Your task to perform on an android device: View the shopping cart on newegg.com. Search for acer predator on newegg.com, select the first entry, add it to the cart, then select checkout. Image 0: 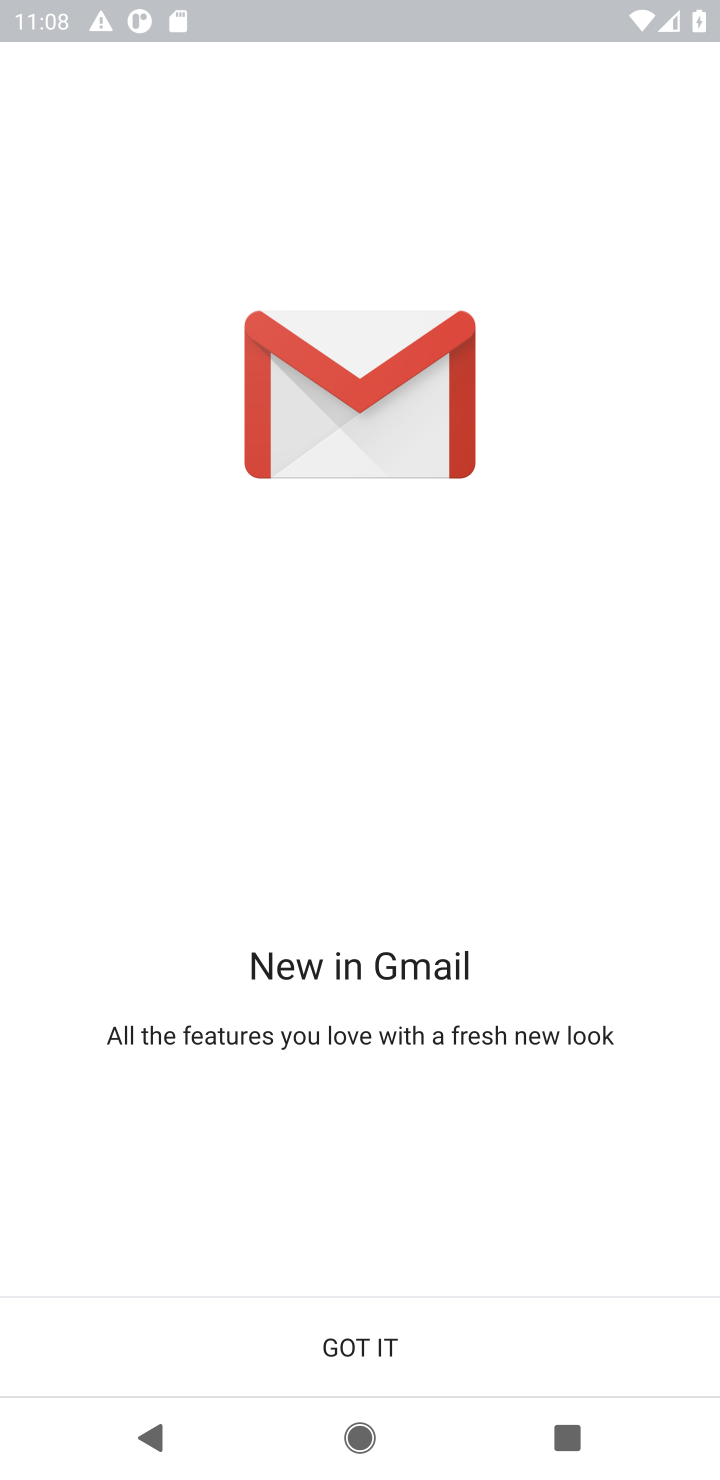
Step 0: press home button
Your task to perform on an android device: View the shopping cart on newegg.com. Search for acer predator on newegg.com, select the first entry, add it to the cart, then select checkout. Image 1: 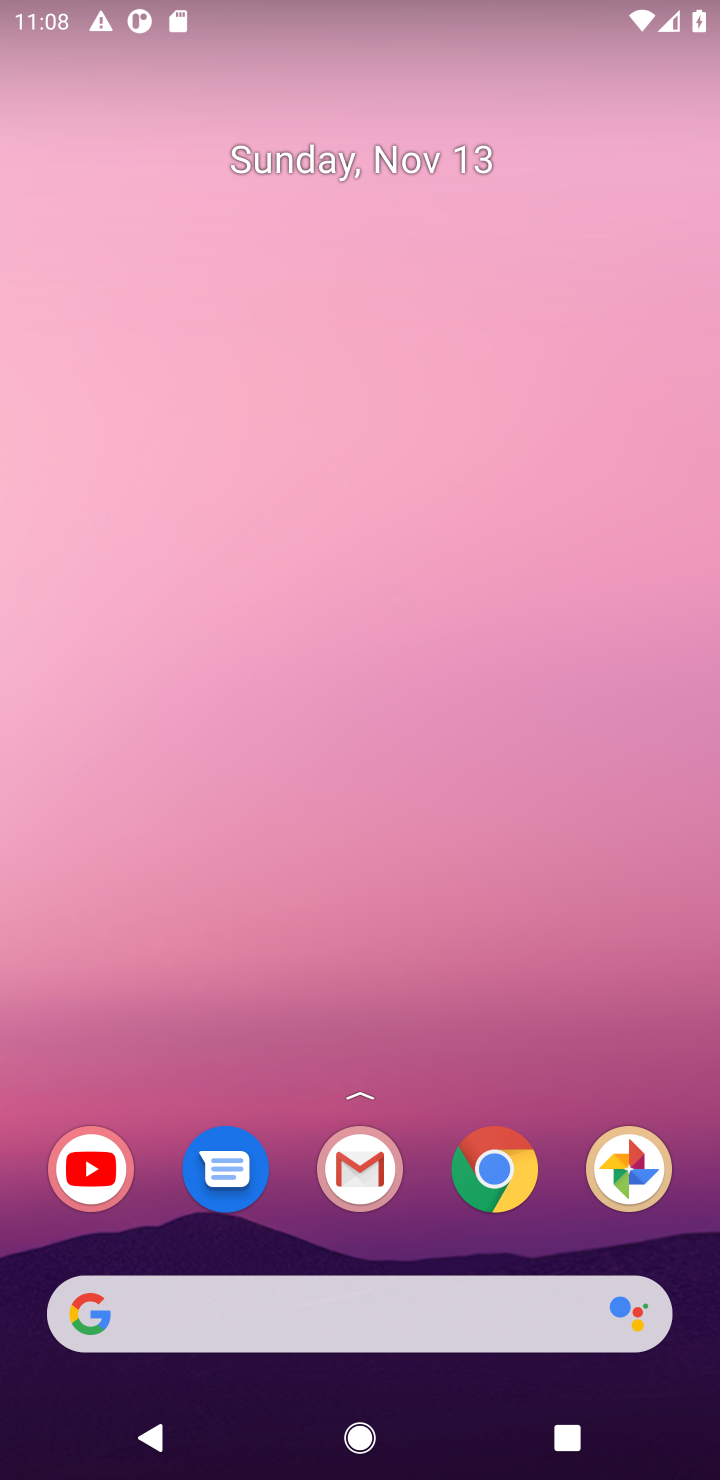
Step 1: drag from (332, 574) to (275, 188)
Your task to perform on an android device: View the shopping cart on newegg.com. Search for acer predator on newegg.com, select the first entry, add it to the cart, then select checkout. Image 2: 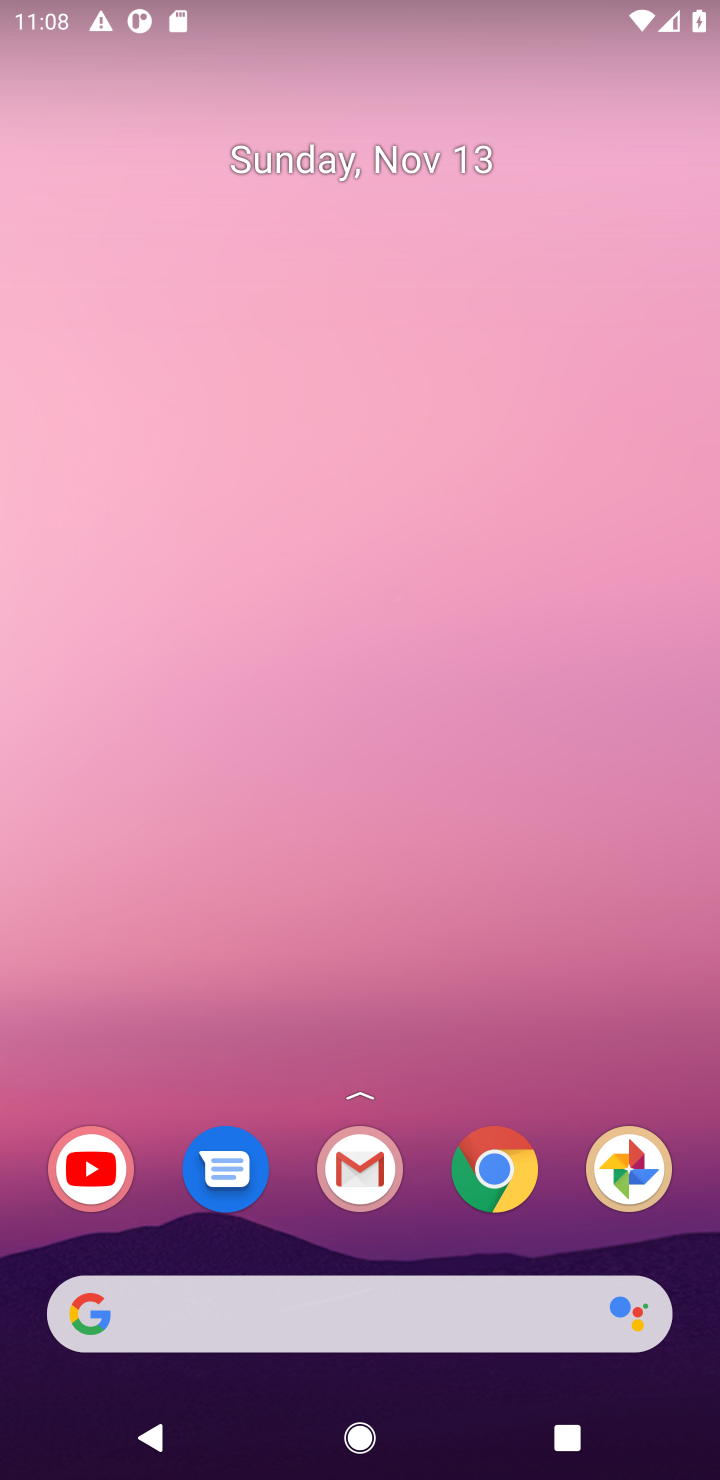
Step 2: drag from (293, 1250) to (254, 112)
Your task to perform on an android device: View the shopping cart on newegg.com. Search for acer predator on newegg.com, select the first entry, add it to the cart, then select checkout. Image 3: 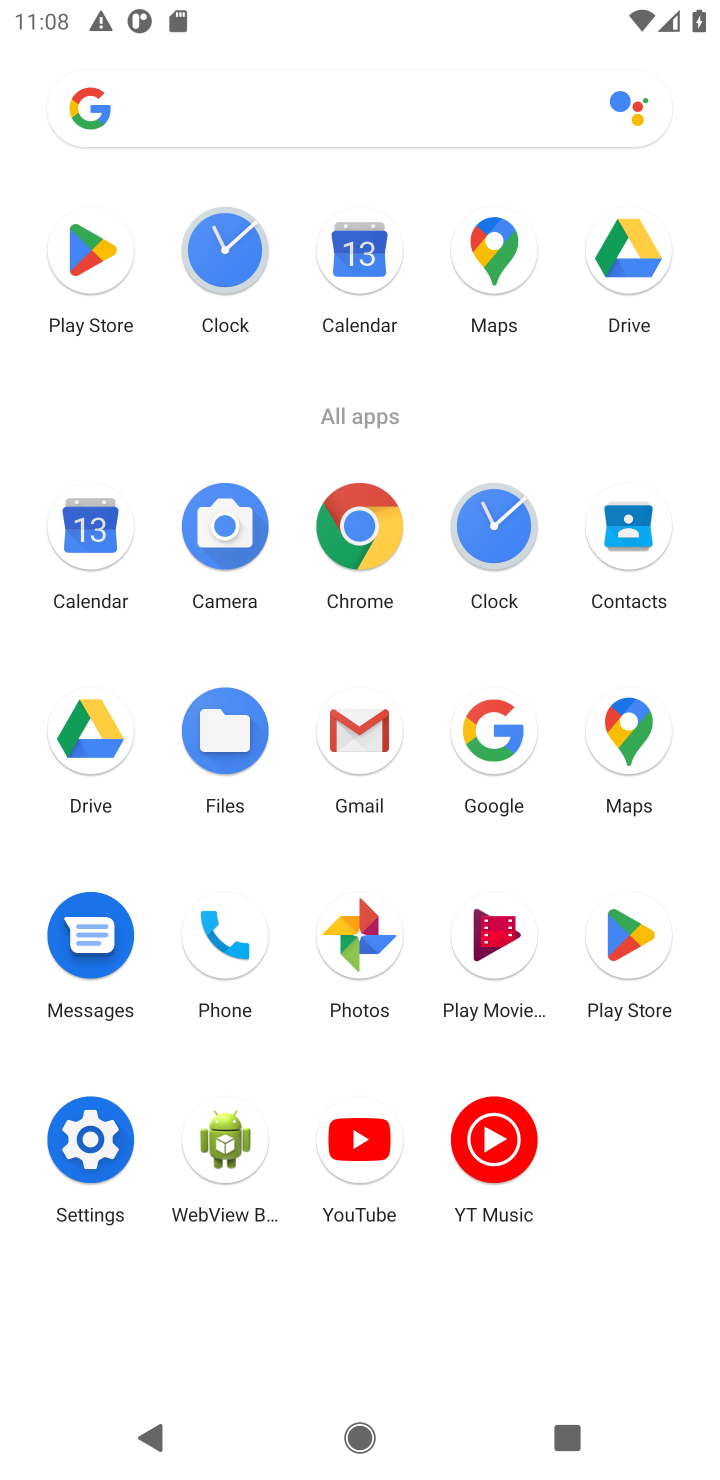
Step 3: click (351, 537)
Your task to perform on an android device: View the shopping cart on newegg.com. Search for acer predator on newegg.com, select the first entry, add it to the cart, then select checkout. Image 4: 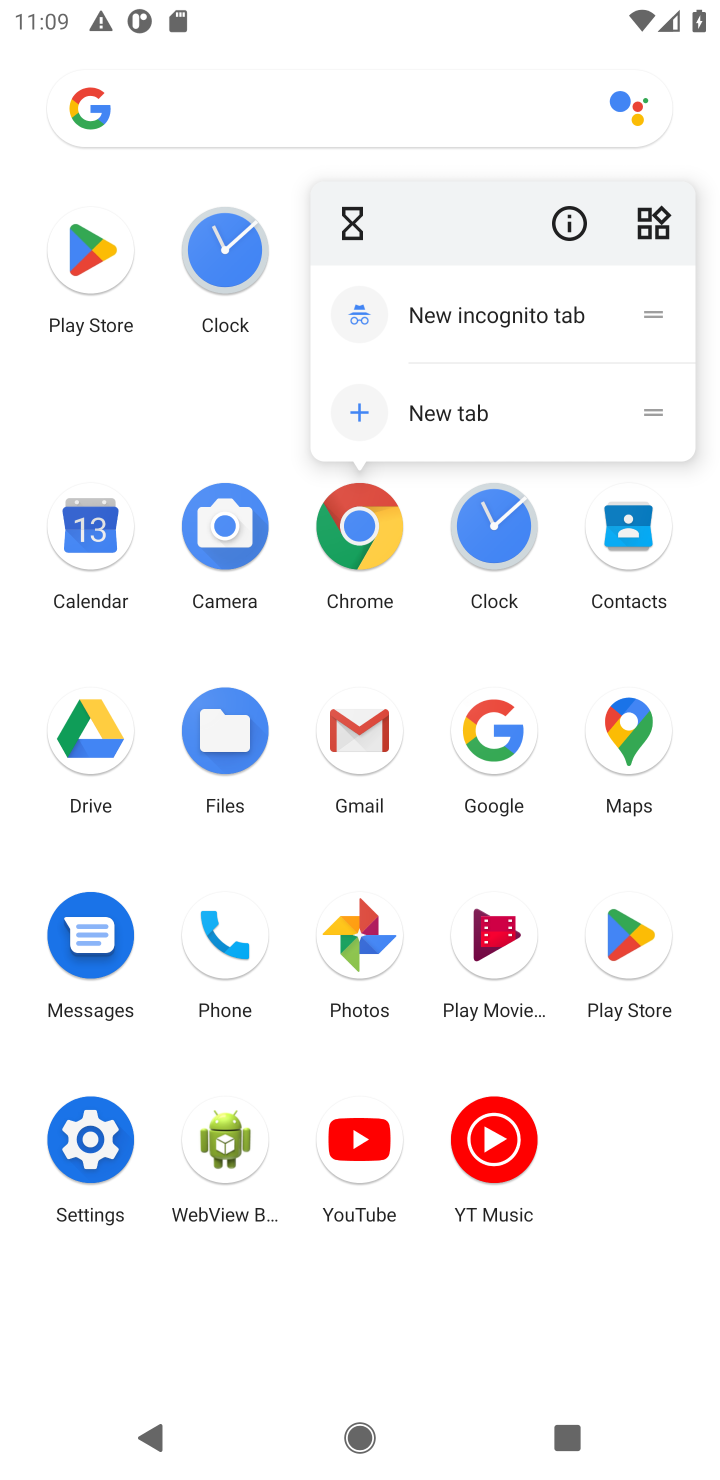
Step 4: click (349, 533)
Your task to perform on an android device: View the shopping cart on newegg.com. Search for acer predator on newegg.com, select the first entry, add it to the cart, then select checkout. Image 5: 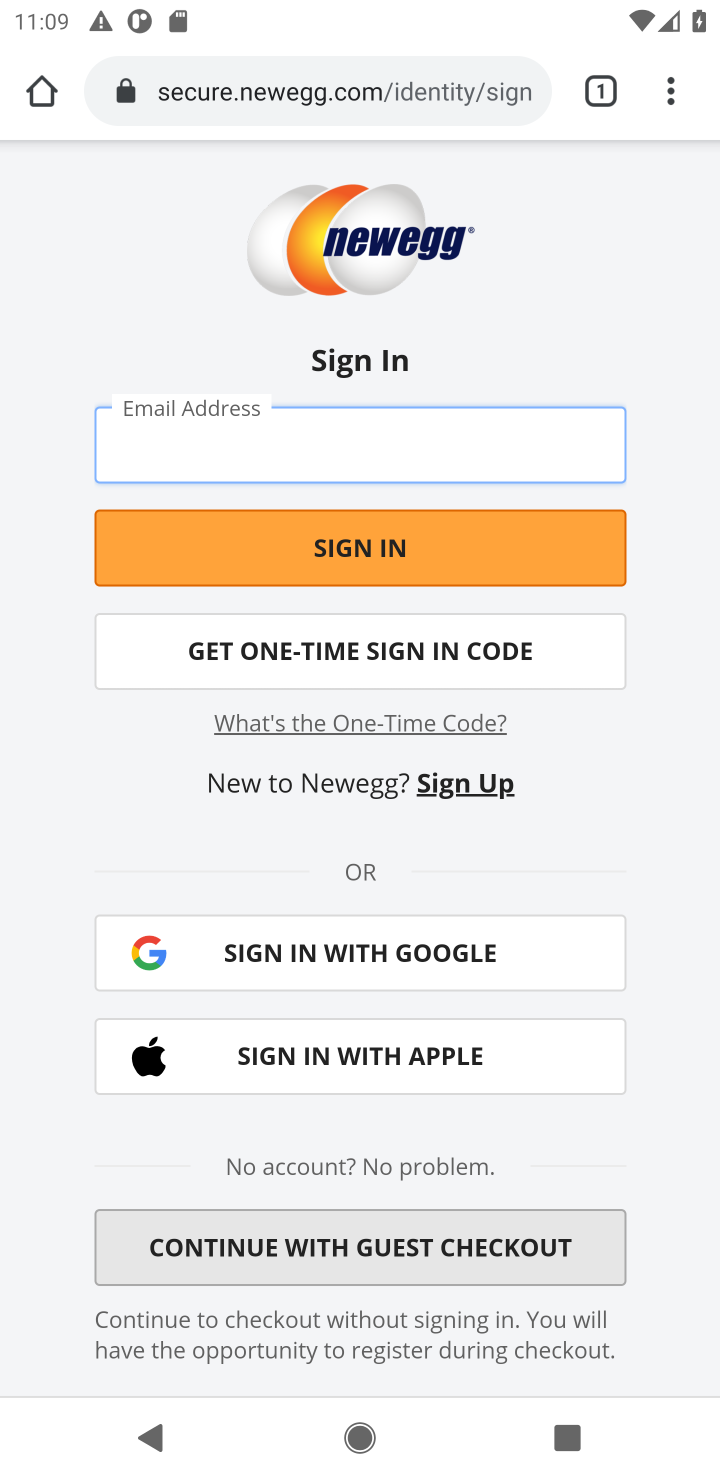
Step 5: click (222, 85)
Your task to perform on an android device: View the shopping cart on newegg.com. Search for acer predator on newegg.com, select the first entry, add it to the cart, then select checkout. Image 6: 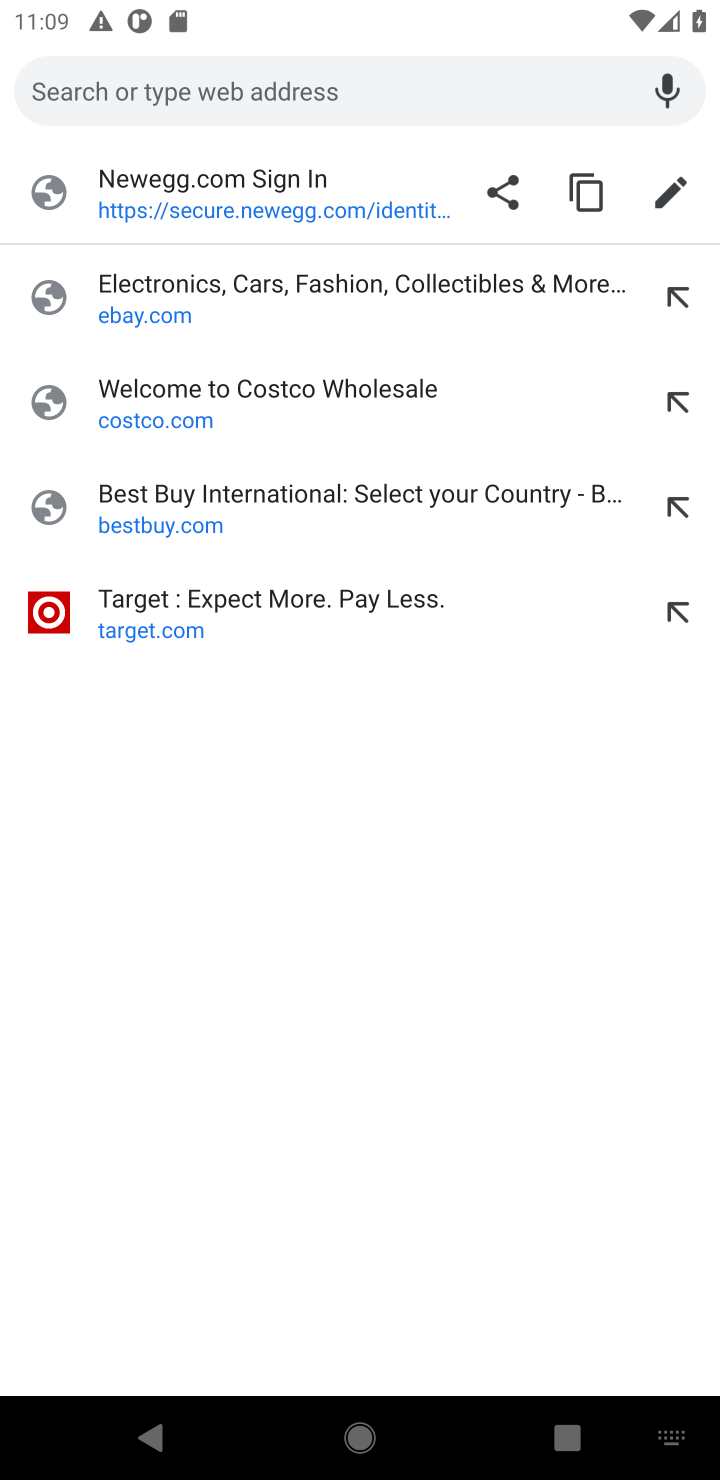
Step 6: type "newegg.com"
Your task to perform on an android device: View the shopping cart on newegg.com. Search for acer predator on newegg.com, select the first entry, add it to the cart, then select checkout. Image 7: 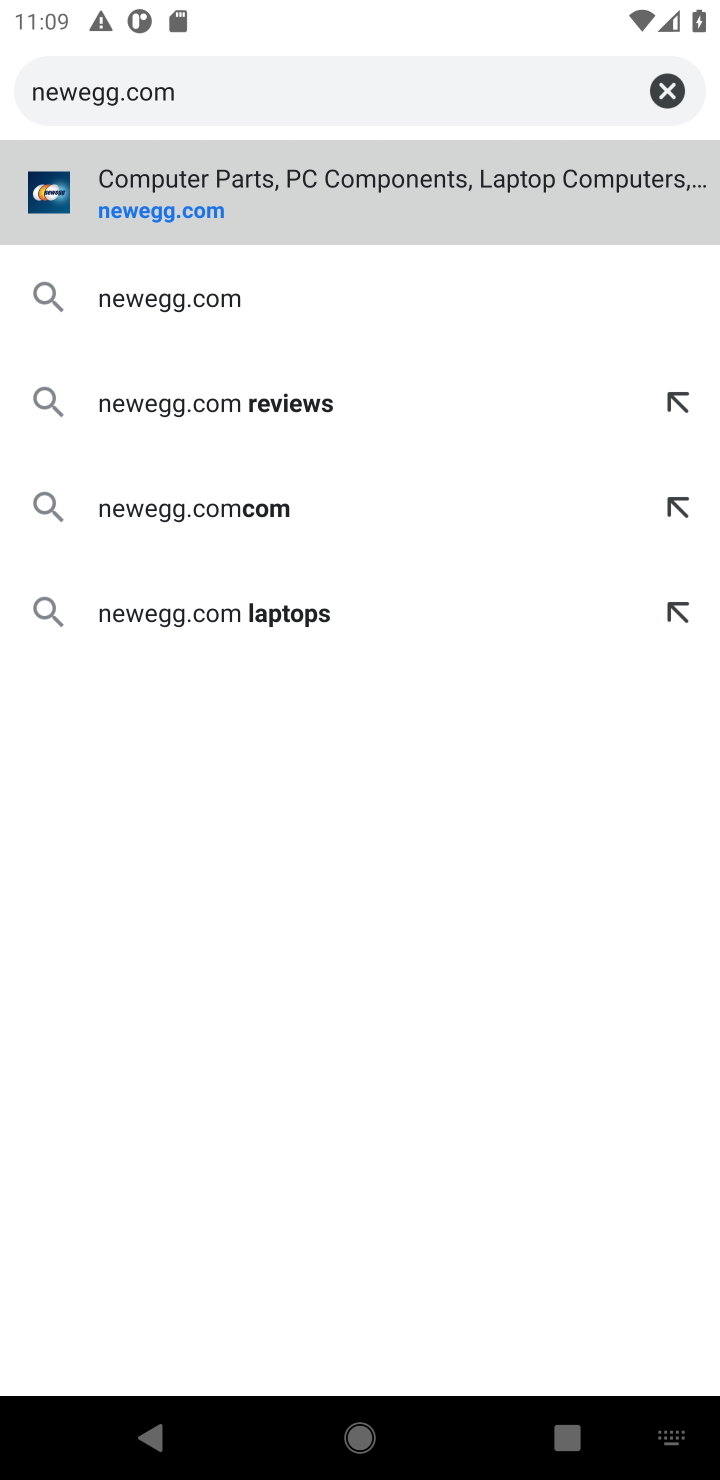
Step 7: press enter
Your task to perform on an android device: View the shopping cart on newegg.com. Search for acer predator on newegg.com, select the first entry, add it to the cart, then select checkout. Image 8: 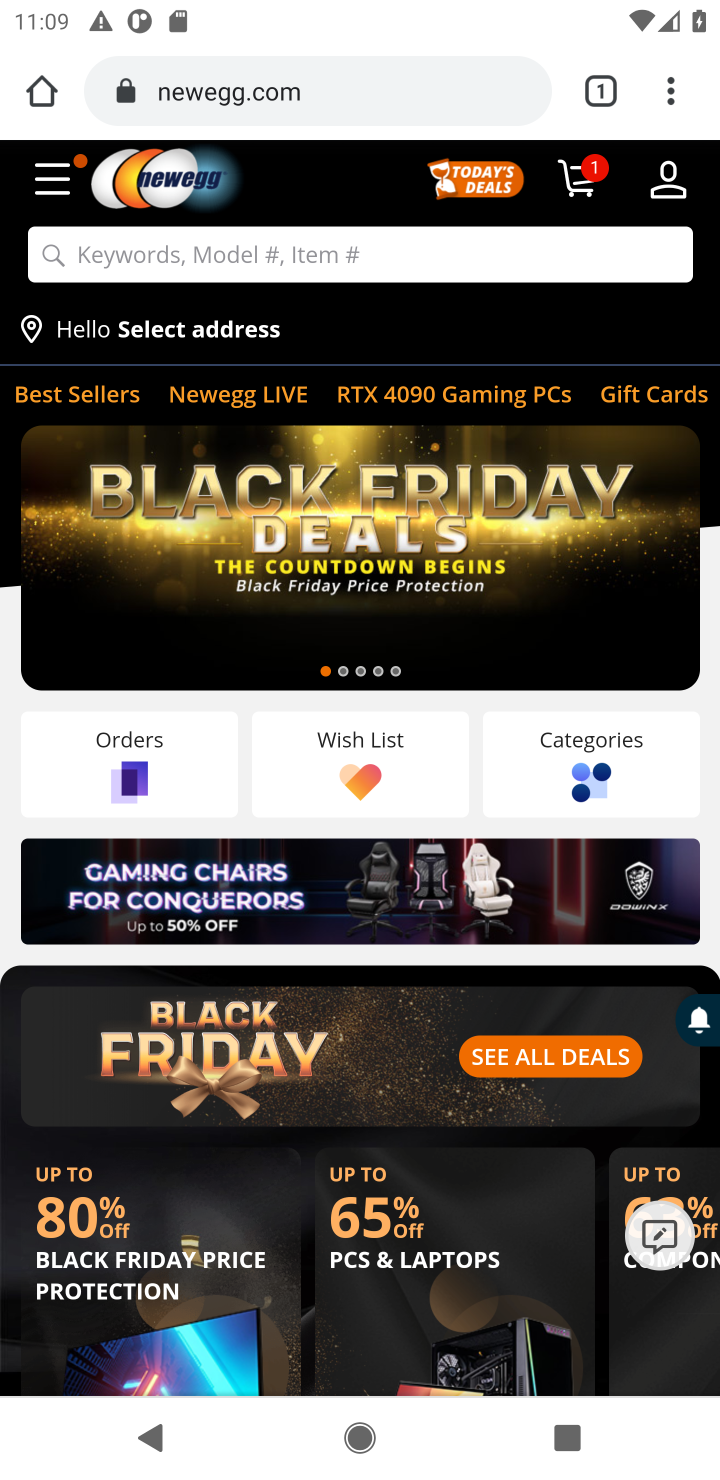
Step 8: click (596, 182)
Your task to perform on an android device: View the shopping cart on newegg.com. Search for acer predator on newegg.com, select the first entry, add it to the cart, then select checkout. Image 9: 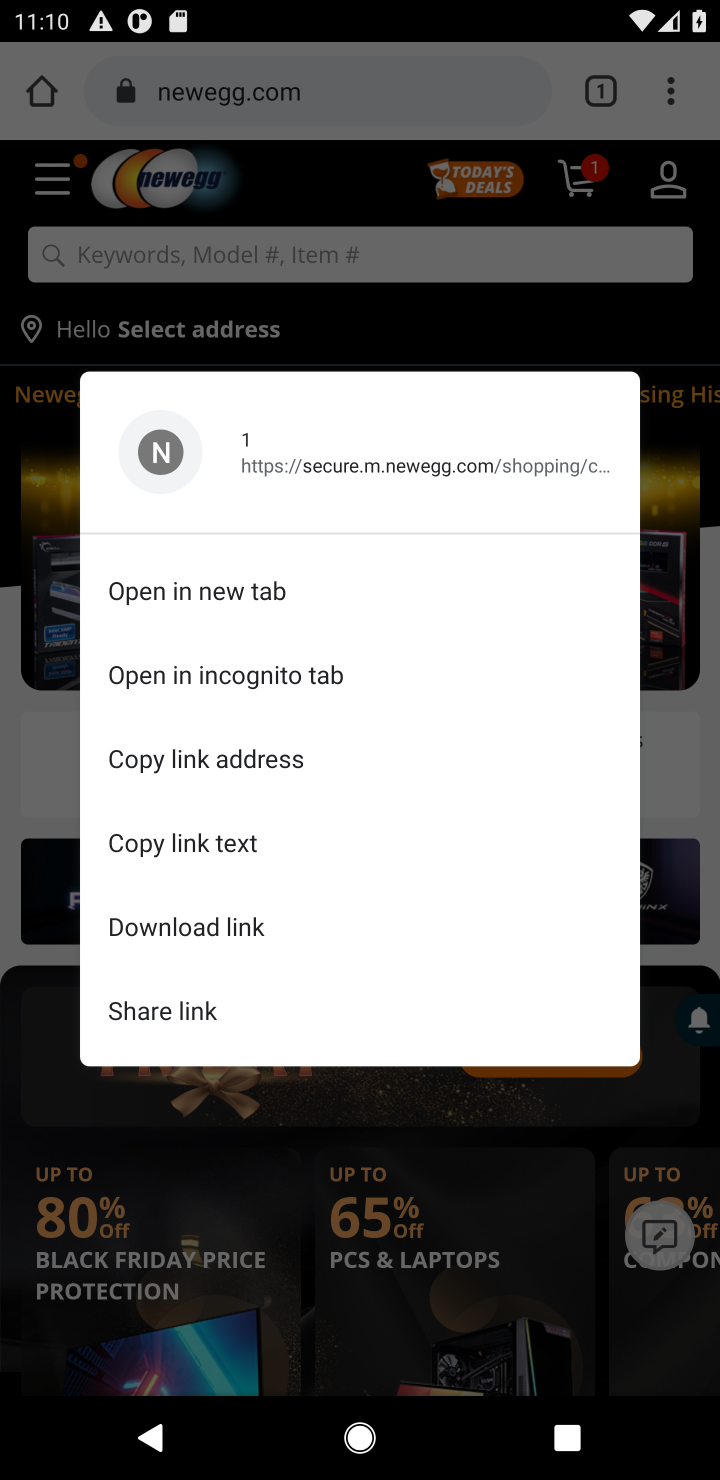
Step 9: click (594, 188)
Your task to perform on an android device: View the shopping cart on newegg.com. Search for acer predator on newegg.com, select the first entry, add it to the cart, then select checkout. Image 10: 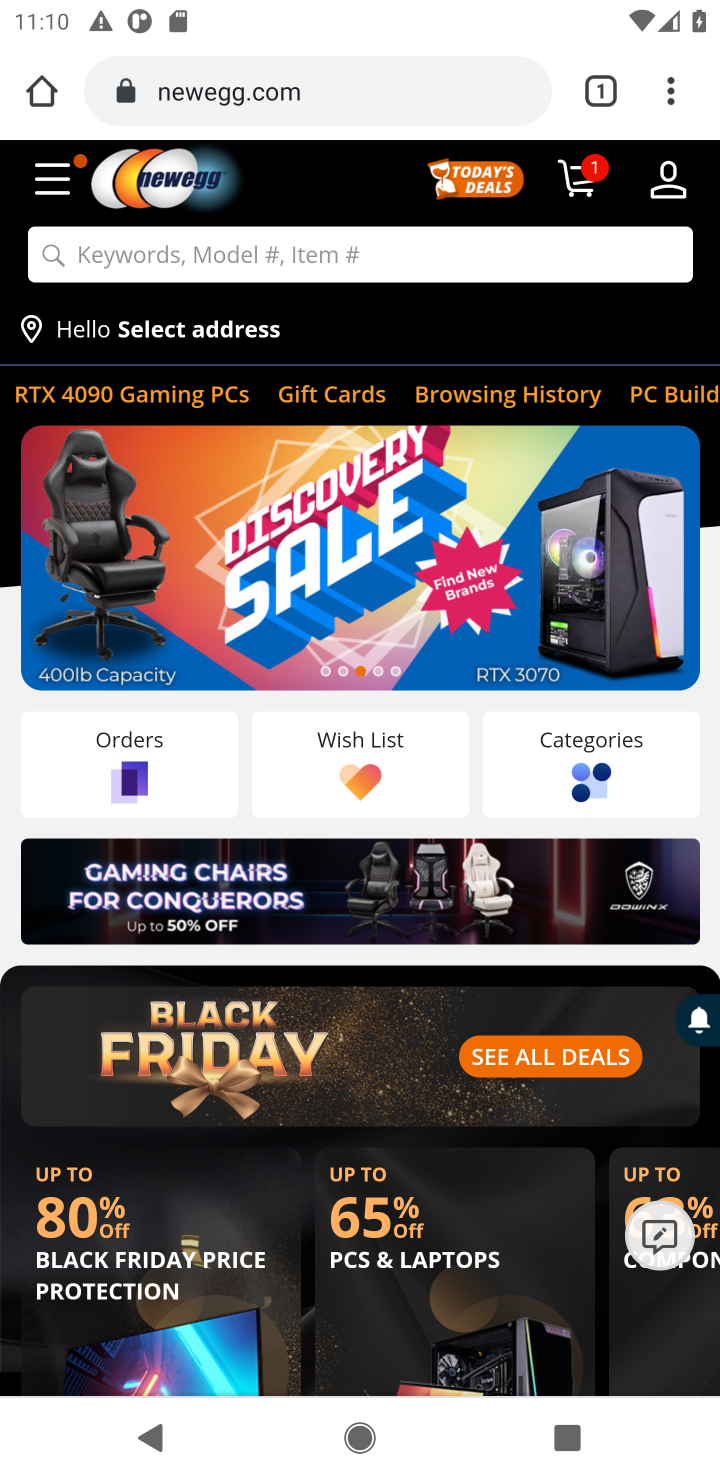
Step 10: click (594, 188)
Your task to perform on an android device: View the shopping cart on newegg.com. Search for acer predator on newegg.com, select the first entry, add it to the cart, then select checkout. Image 11: 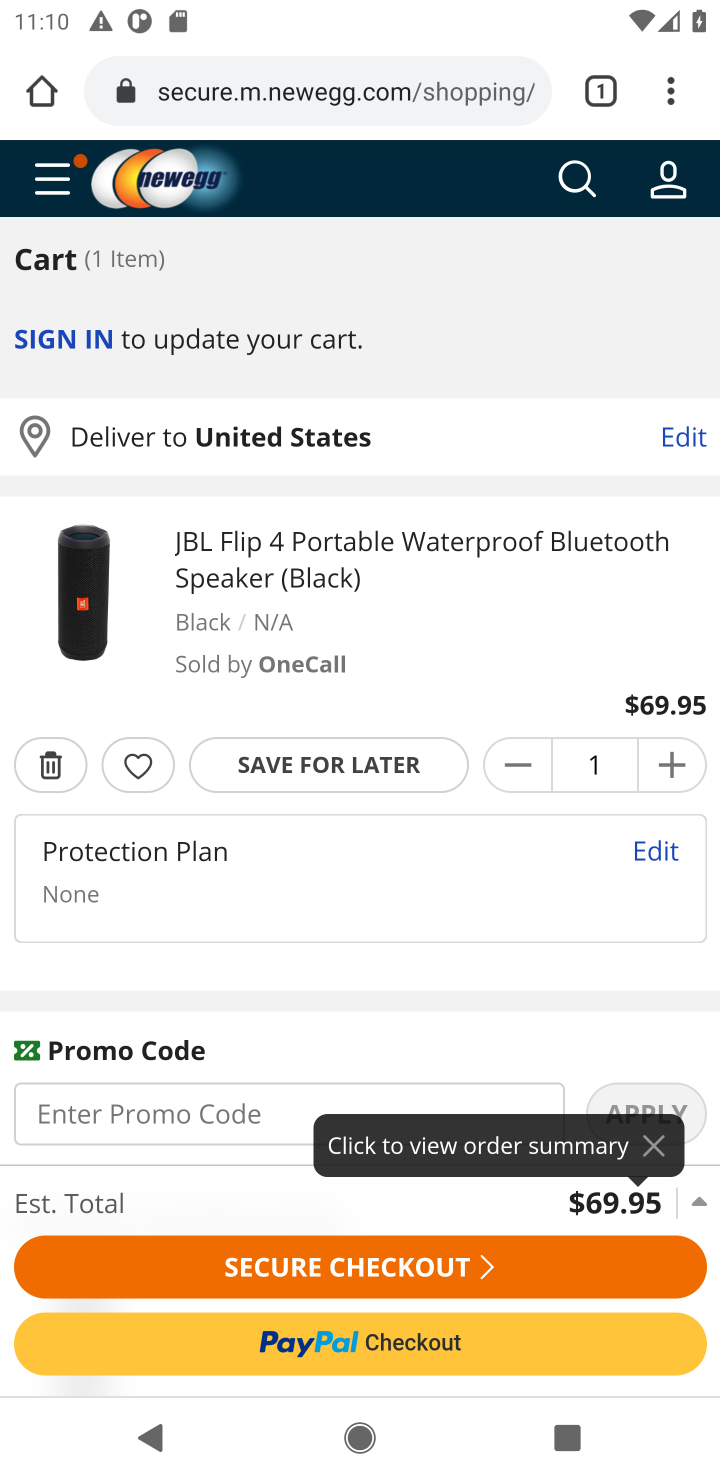
Step 11: click (573, 173)
Your task to perform on an android device: View the shopping cart on newegg.com. Search for acer predator on newegg.com, select the first entry, add it to the cart, then select checkout. Image 12: 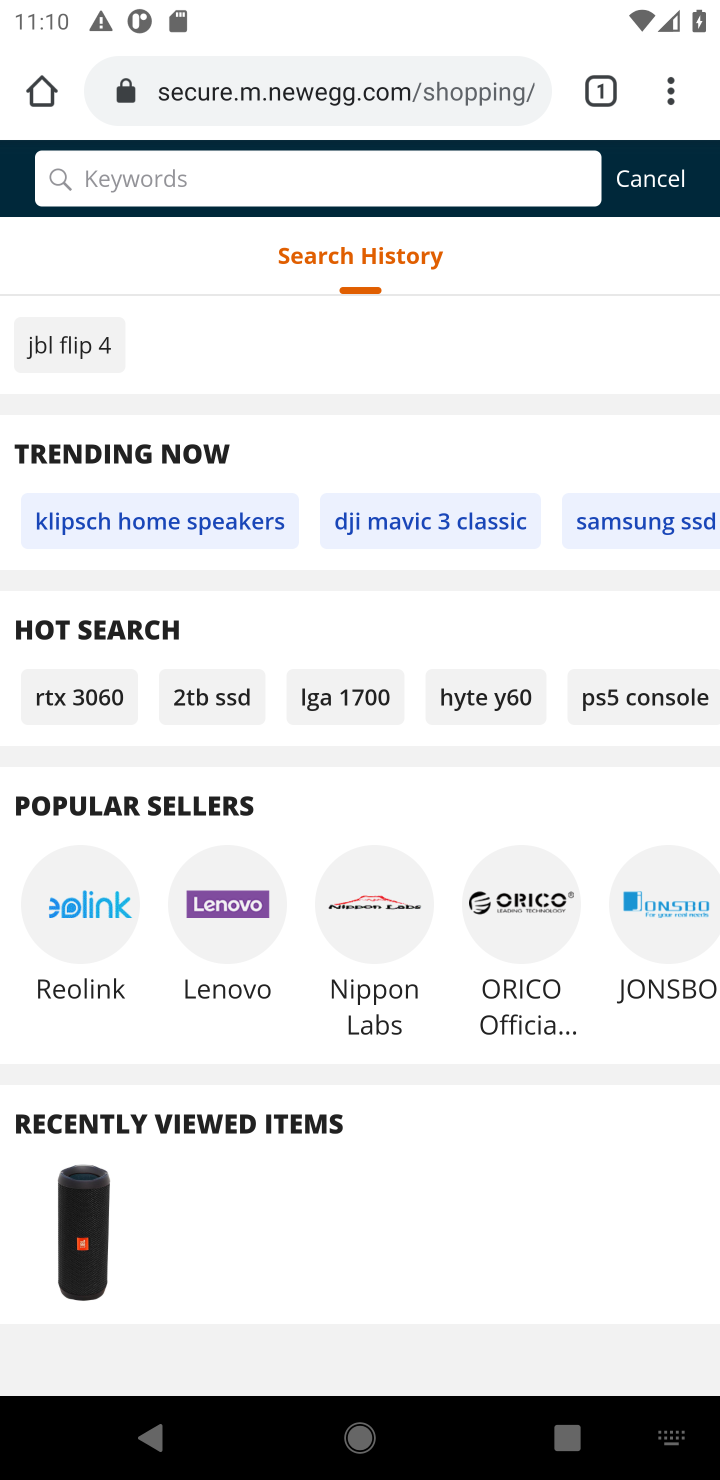
Step 12: type "acer  predator"
Your task to perform on an android device: View the shopping cart on newegg.com. Search for acer predator on newegg.com, select the first entry, add it to the cart, then select checkout. Image 13: 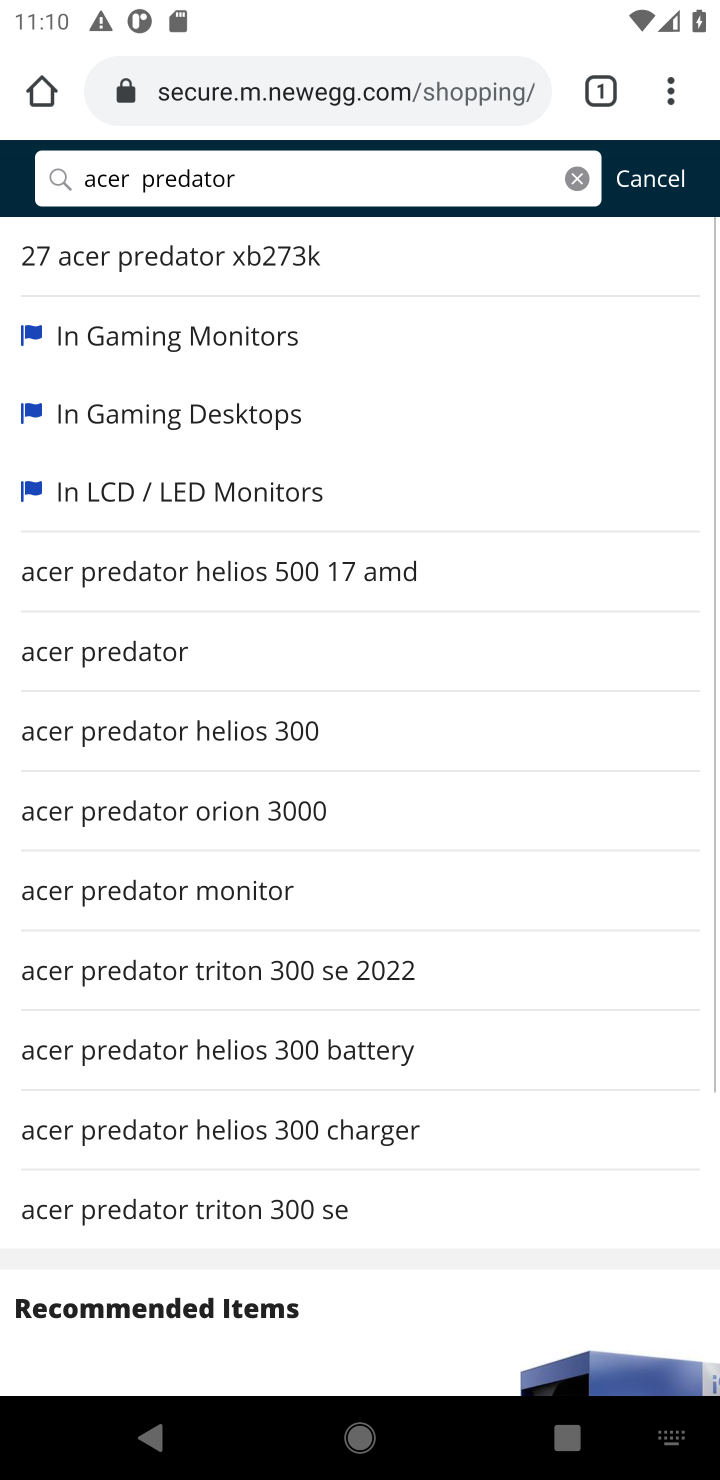
Step 13: press enter
Your task to perform on an android device: View the shopping cart on newegg.com. Search for acer predator on newegg.com, select the first entry, add it to the cart, then select checkout. Image 14: 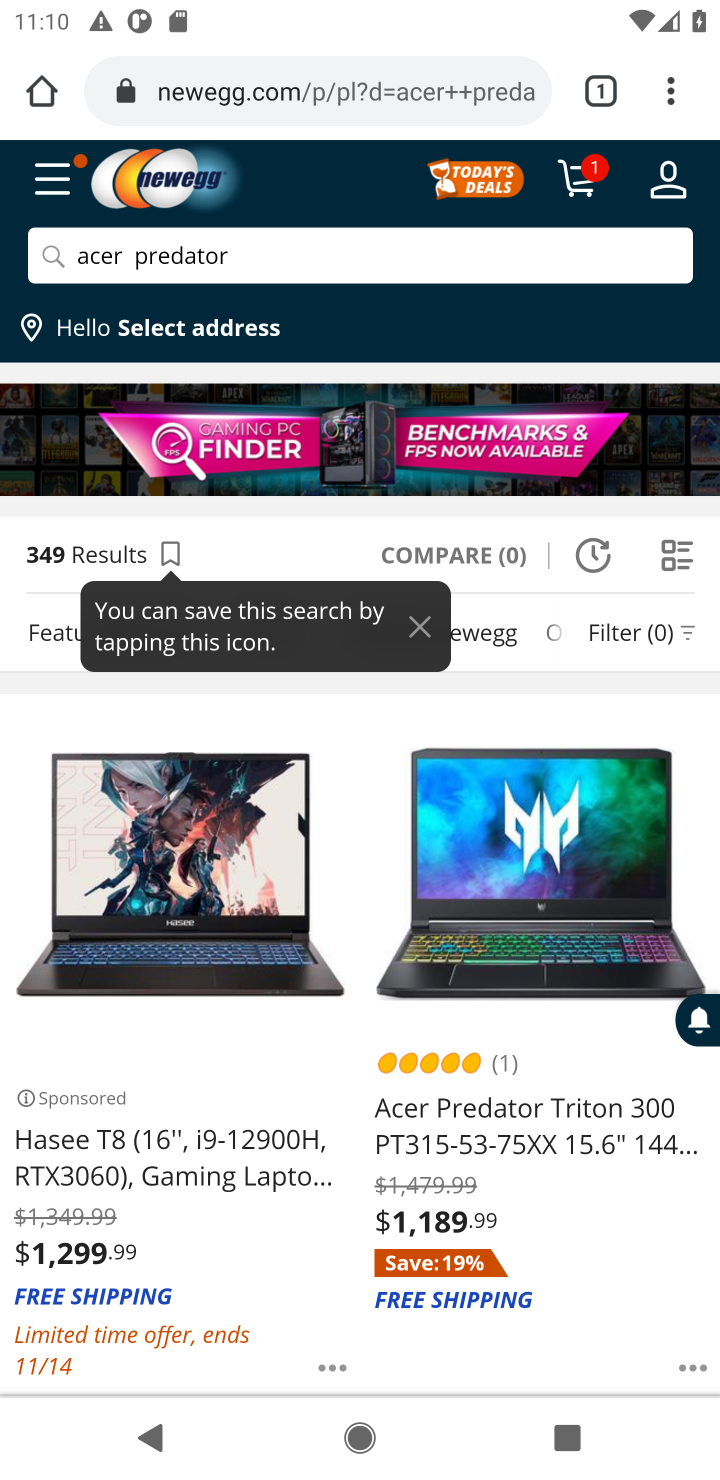
Step 14: click (535, 1127)
Your task to perform on an android device: View the shopping cart on newegg.com. Search for acer predator on newegg.com, select the first entry, add it to the cart, then select checkout. Image 15: 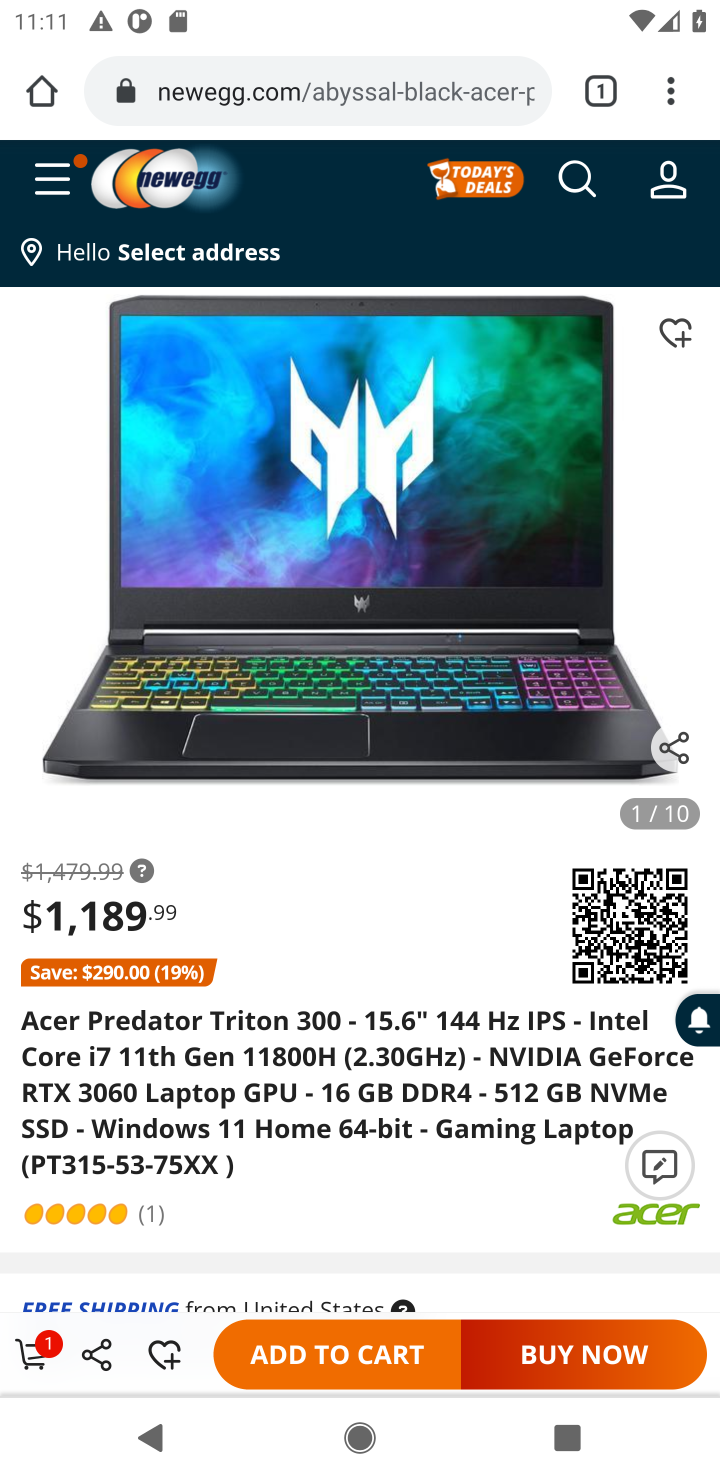
Step 15: click (343, 1362)
Your task to perform on an android device: View the shopping cart on newegg.com. Search for acer predator on newegg.com, select the first entry, add it to the cart, then select checkout. Image 16: 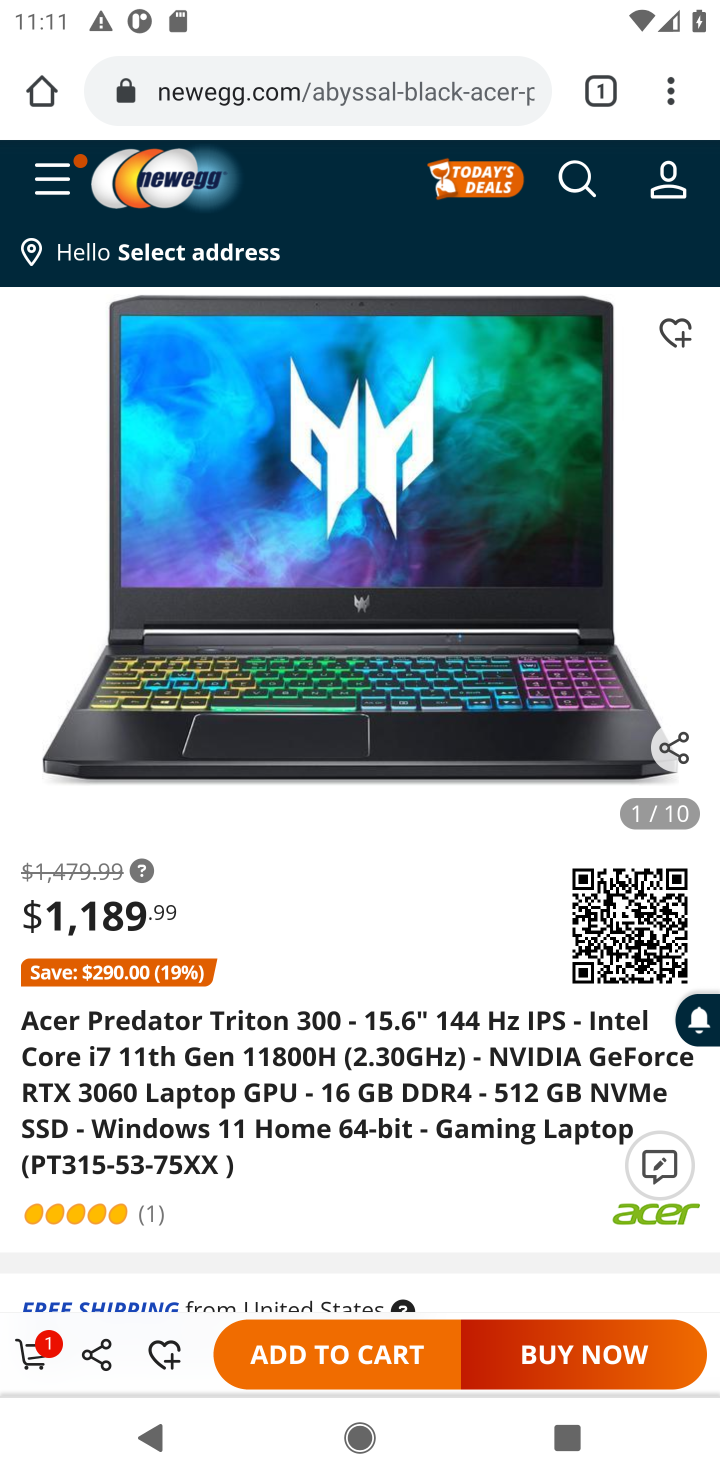
Step 16: click (289, 1344)
Your task to perform on an android device: View the shopping cart on newegg.com. Search for acer predator on newegg.com, select the first entry, add it to the cart, then select checkout. Image 17: 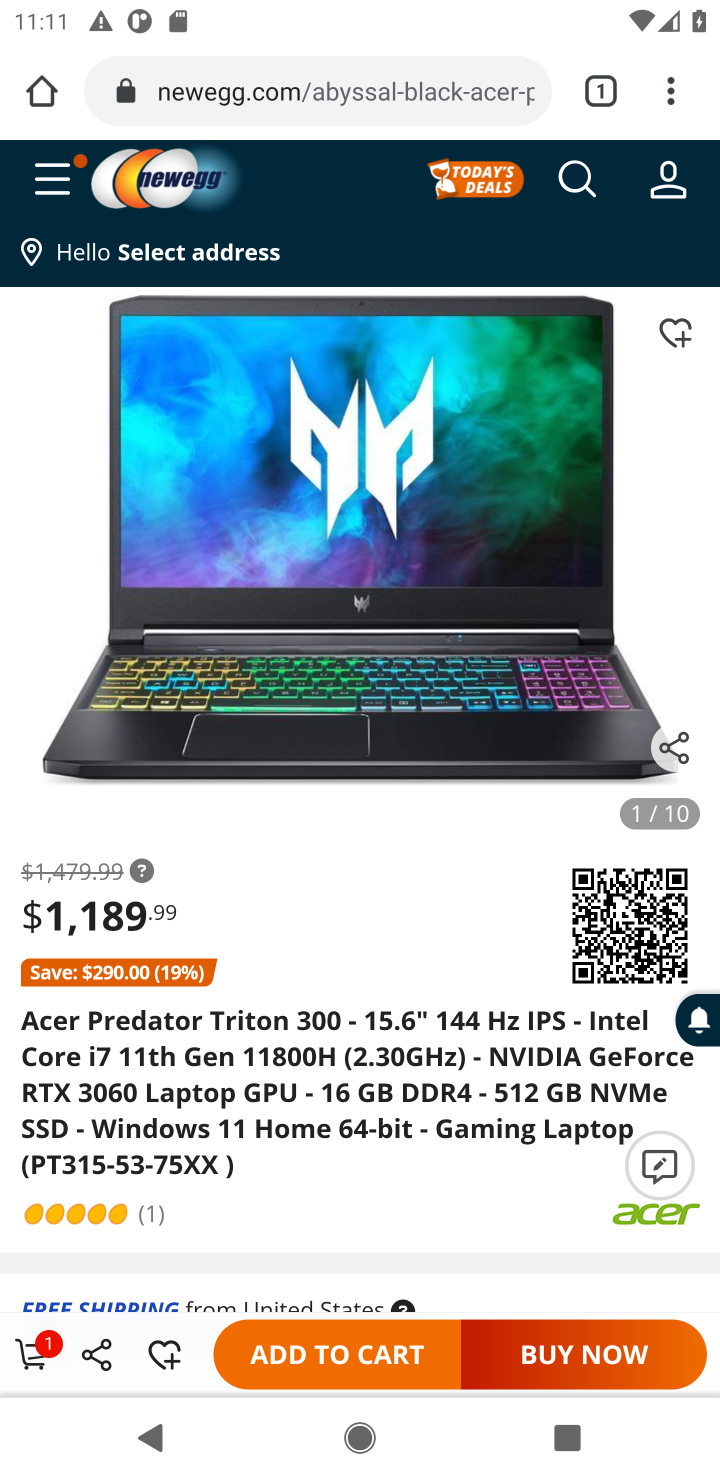
Step 17: drag from (496, 598) to (557, 385)
Your task to perform on an android device: View the shopping cart on newegg.com. Search for acer predator on newegg.com, select the first entry, add it to the cart, then select checkout. Image 18: 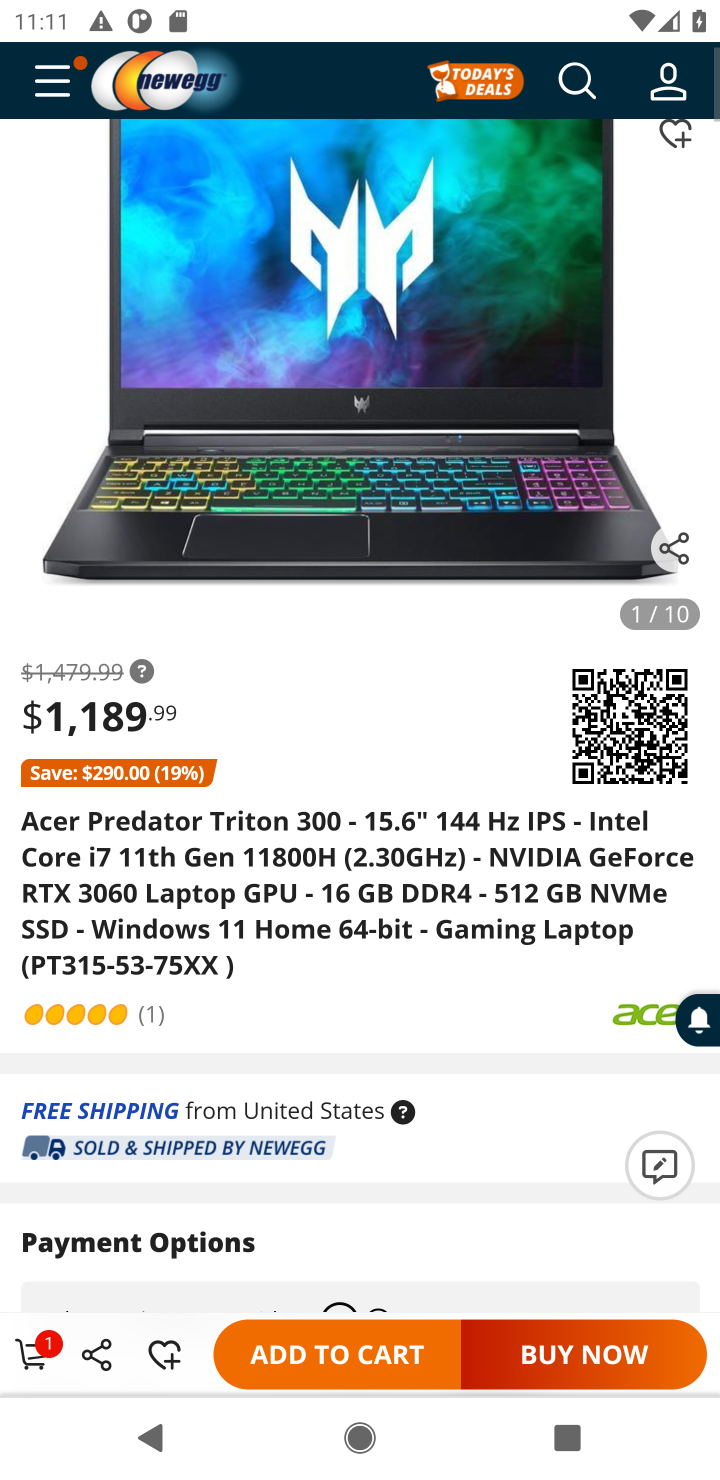
Step 18: drag from (400, 597) to (423, 462)
Your task to perform on an android device: View the shopping cart on newegg.com. Search for acer predator on newegg.com, select the first entry, add it to the cart, then select checkout. Image 19: 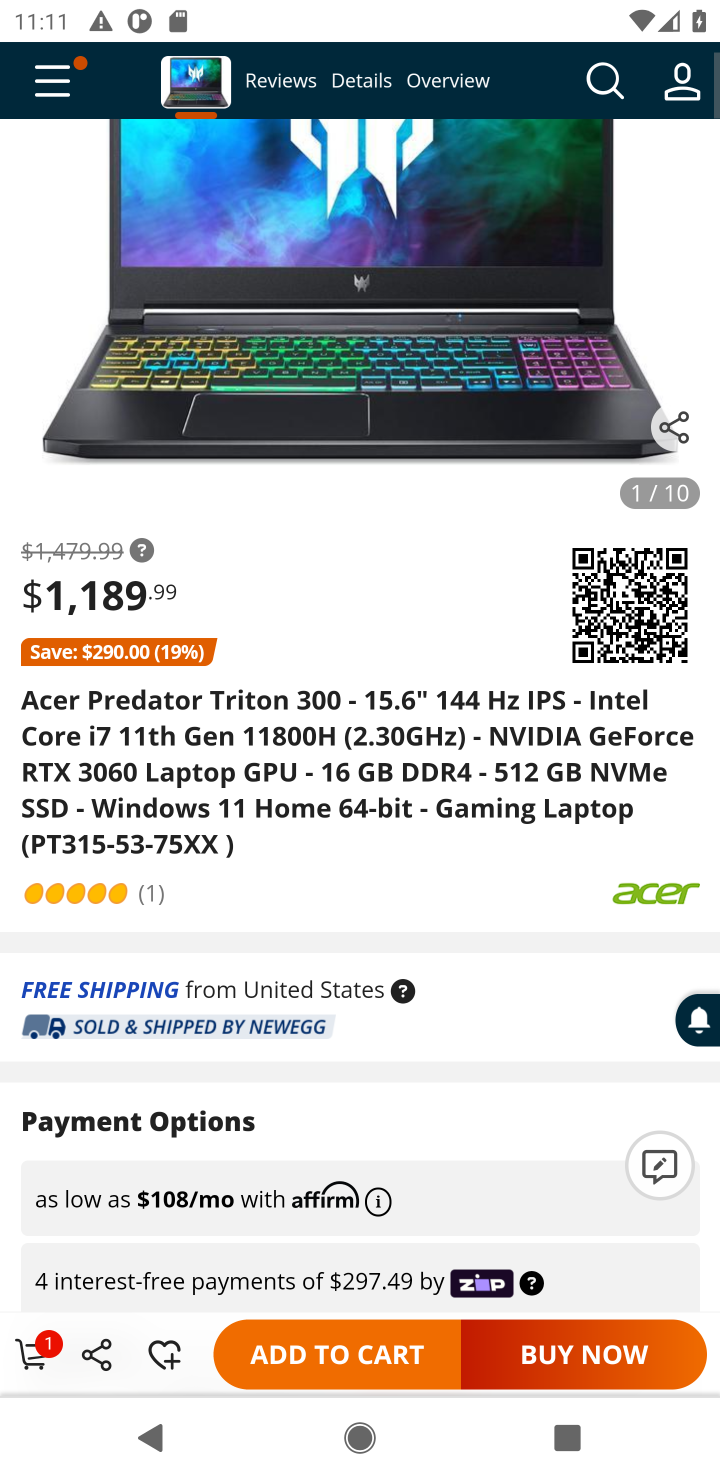
Step 19: click (344, 1350)
Your task to perform on an android device: View the shopping cart on newegg.com. Search for acer predator on newegg.com, select the first entry, add it to the cart, then select checkout. Image 20: 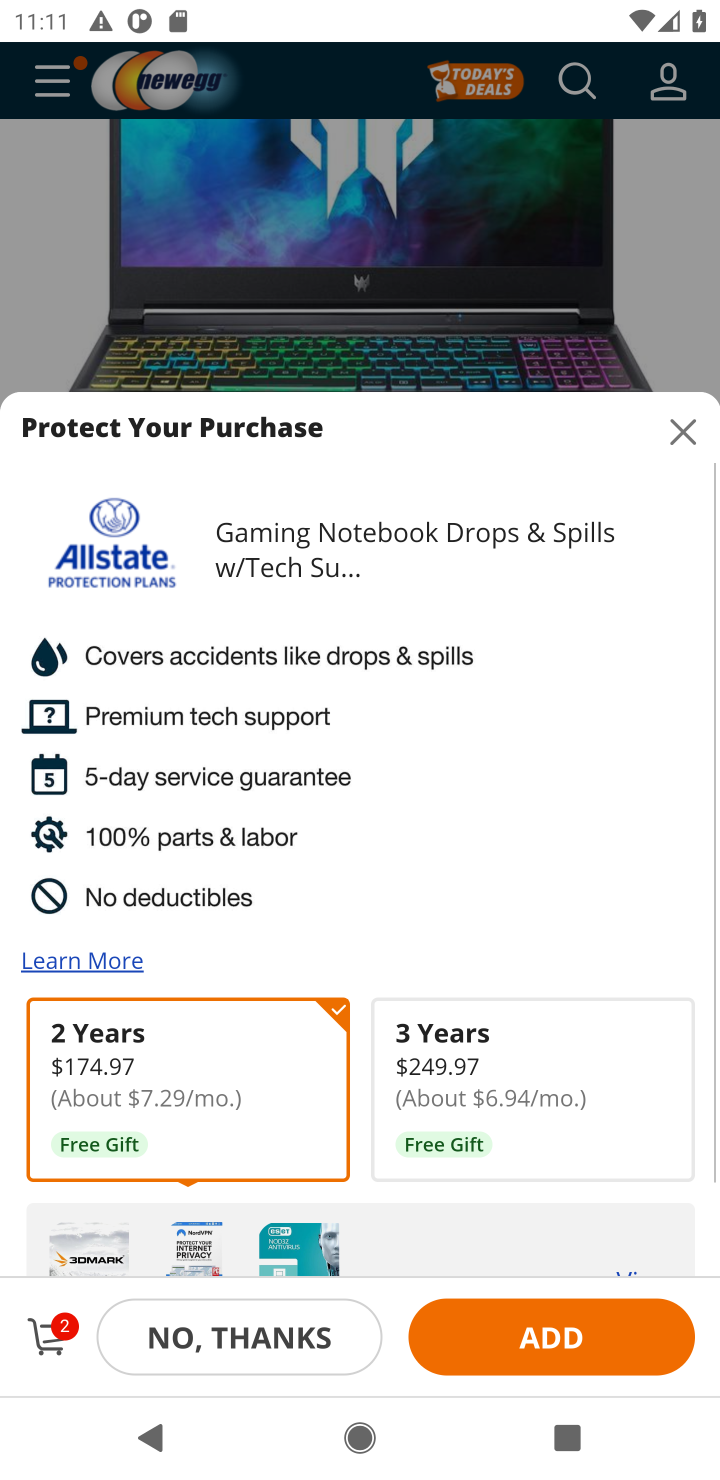
Step 20: click (66, 1335)
Your task to perform on an android device: View the shopping cart on newegg.com. Search for acer predator on newegg.com, select the first entry, add it to the cart, then select checkout. Image 21: 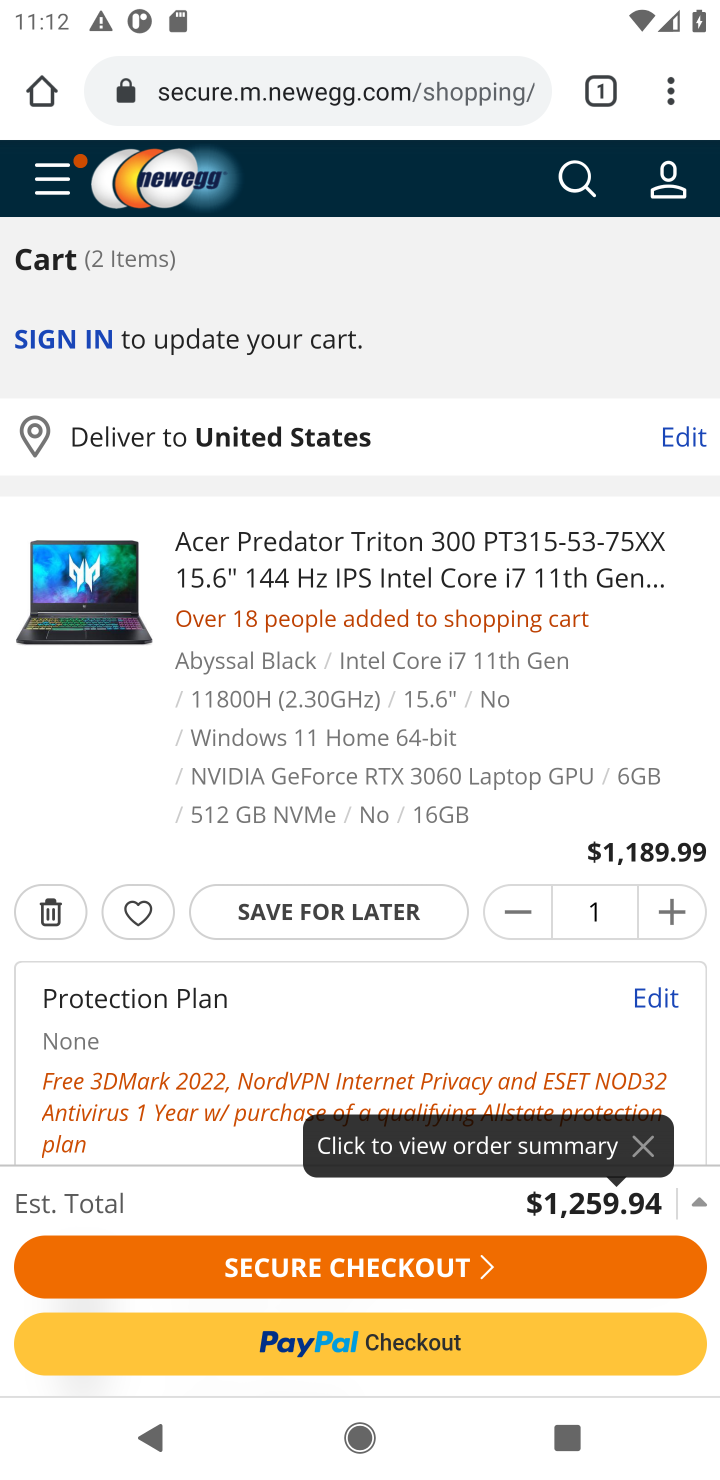
Step 21: click (377, 1254)
Your task to perform on an android device: View the shopping cart on newegg.com. Search for acer predator on newegg.com, select the first entry, add it to the cart, then select checkout. Image 22: 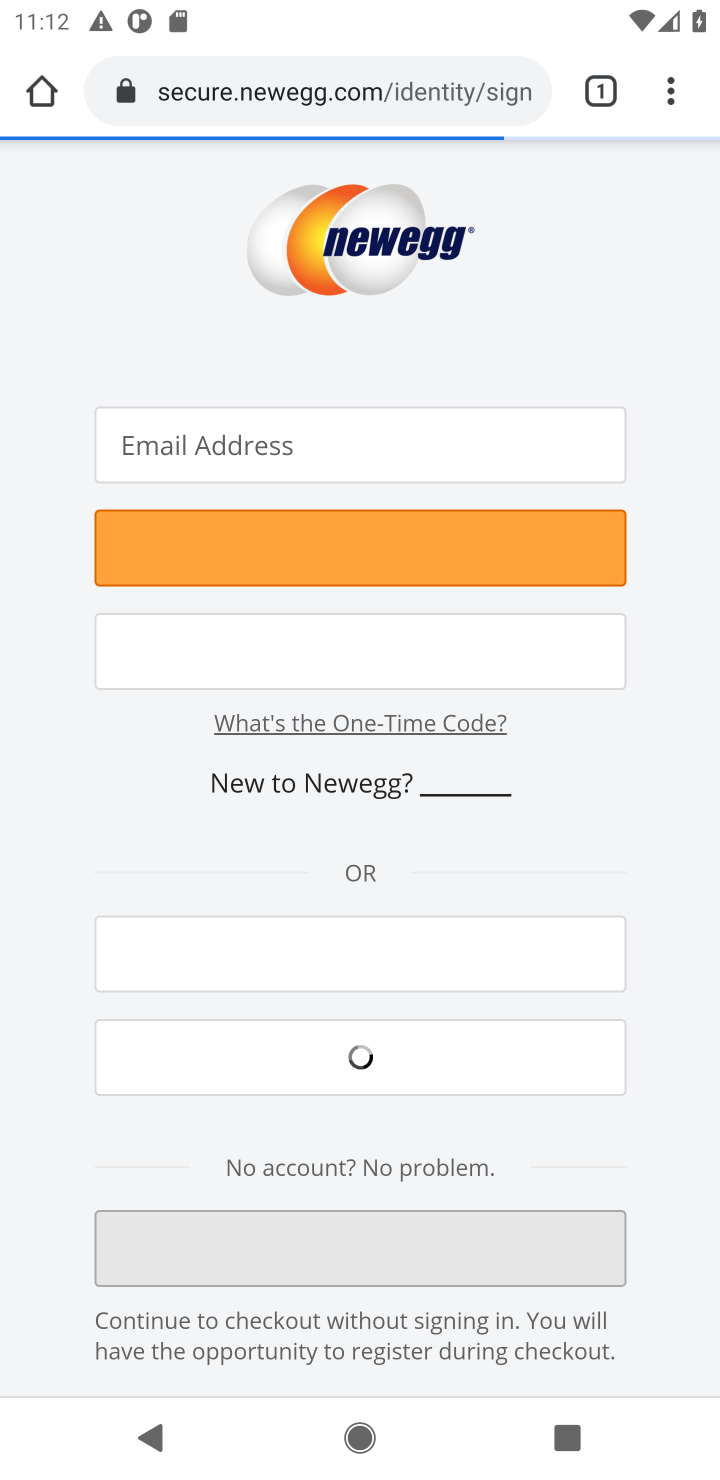
Step 22: task complete